Your task to perform on an android device: What's the weather going to be this weekend? Image 0: 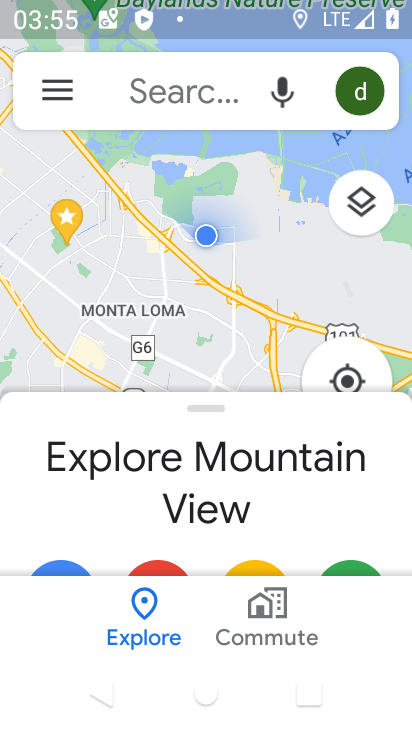
Step 0: press home button
Your task to perform on an android device: What's the weather going to be this weekend? Image 1: 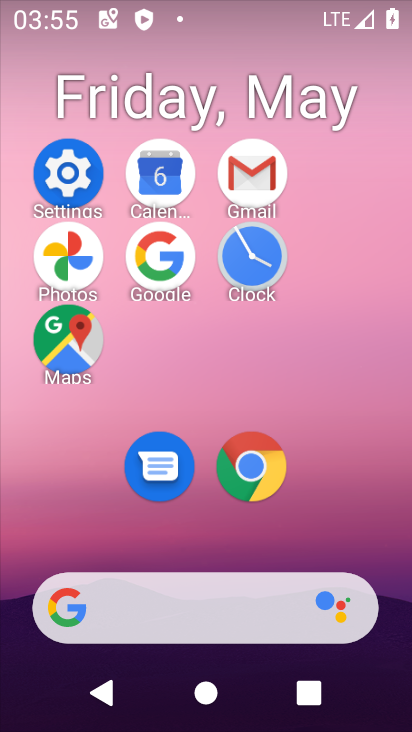
Step 1: click (176, 277)
Your task to perform on an android device: What's the weather going to be this weekend? Image 2: 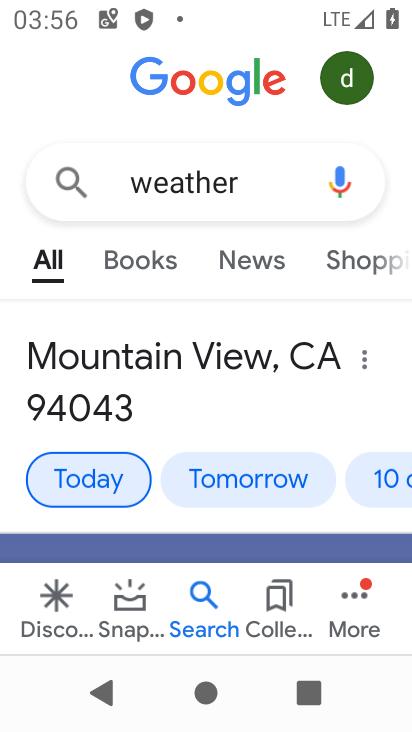
Step 2: click (370, 487)
Your task to perform on an android device: What's the weather going to be this weekend? Image 3: 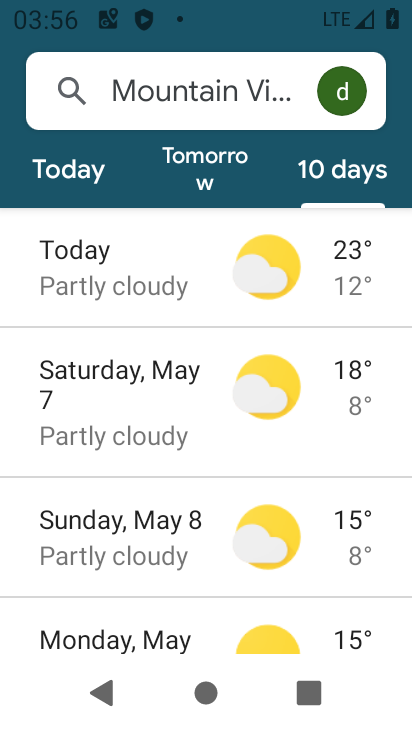
Step 3: click (338, 169)
Your task to perform on an android device: What's the weather going to be this weekend? Image 4: 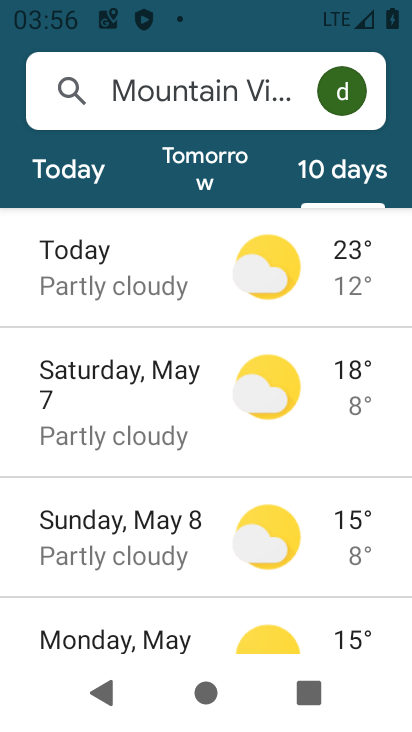
Step 4: click (87, 367)
Your task to perform on an android device: What's the weather going to be this weekend? Image 5: 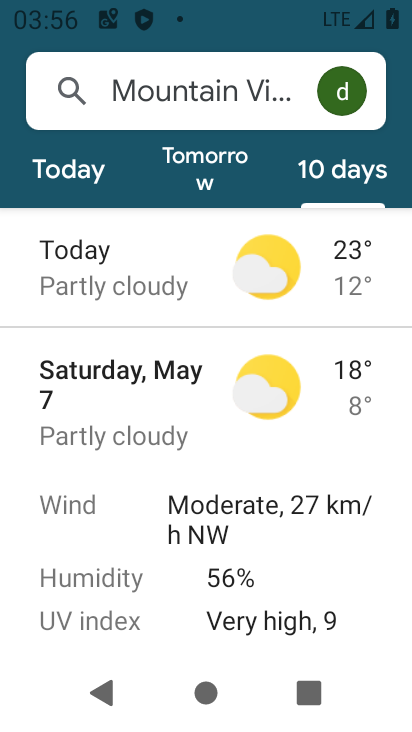
Step 5: click (176, 367)
Your task to perform on an android device: What's the weather going to be this weekend? Image 6: 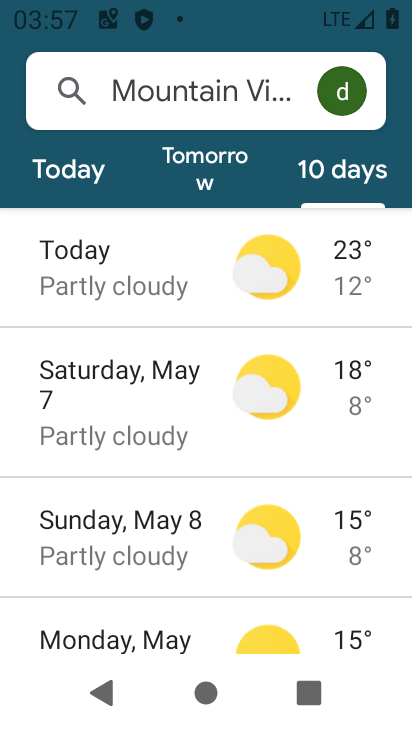
Step 6: click (141, 361)
Your task to perform on an android device: What's the weather going to be this weekend? Image 7: 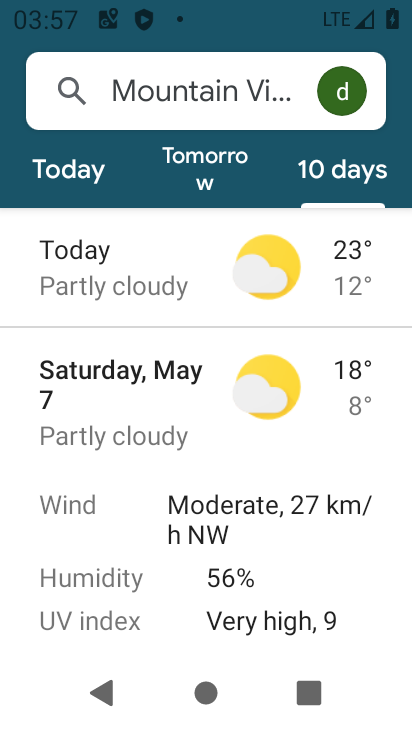
Step 7: task complete